Your task to perform on an android device: allow cookies in the chrome app Image 0: 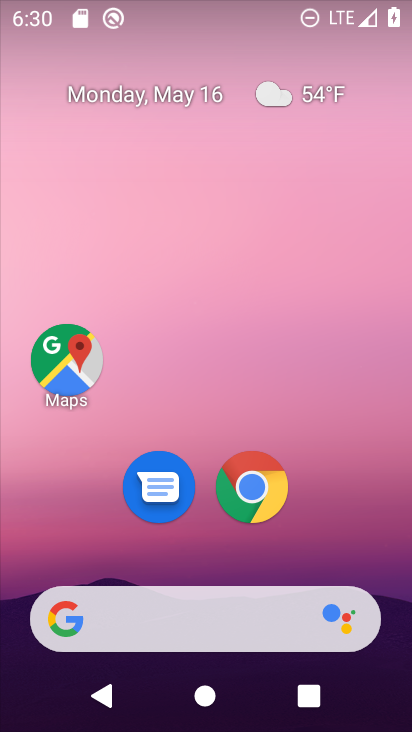
Step 0: click (235, 497)
Your task to perform on an android device: allow cookies in the chrome app Image 1: 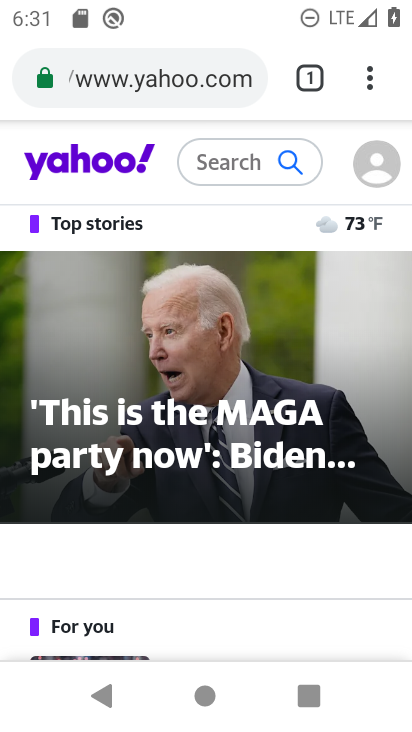
Step 1: click (359, 77)
Your task to perform on an android device: allow cookies in the chrome app Image 2: 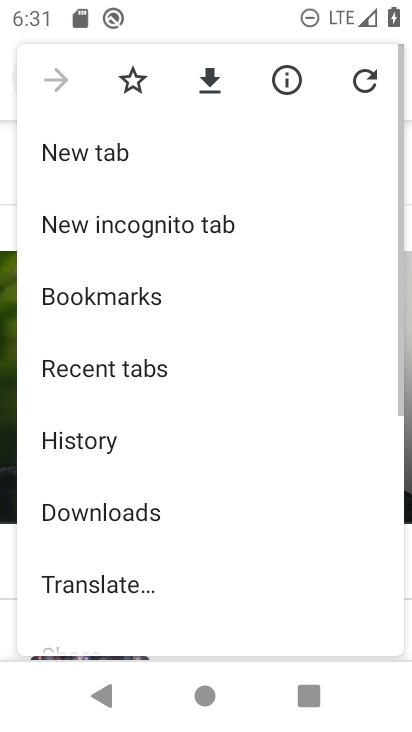
Step 2: drag from (127, 608) to (163, 226)
Your task to perform on an android device: allow cookies in the chrome app Image 3: 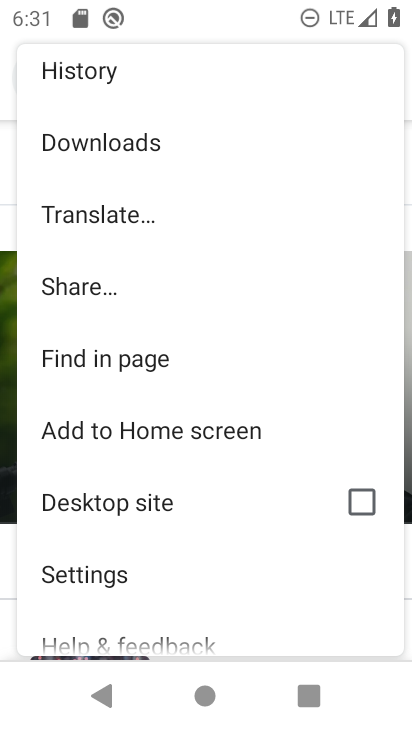
Step 3: click (98, 563)
Your task to perform on an android device: allow cookies in the chrome app Image 4: 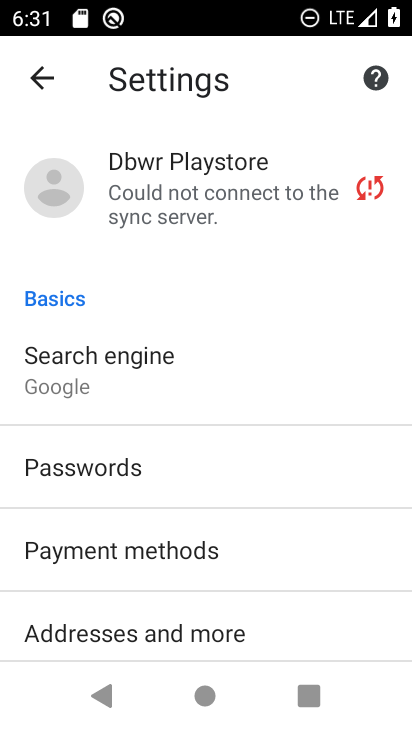
Step 4: drag from (83, 619) to (101, 308)
Your task to perform on an android device: allow cookies in the chrome app Image 5: 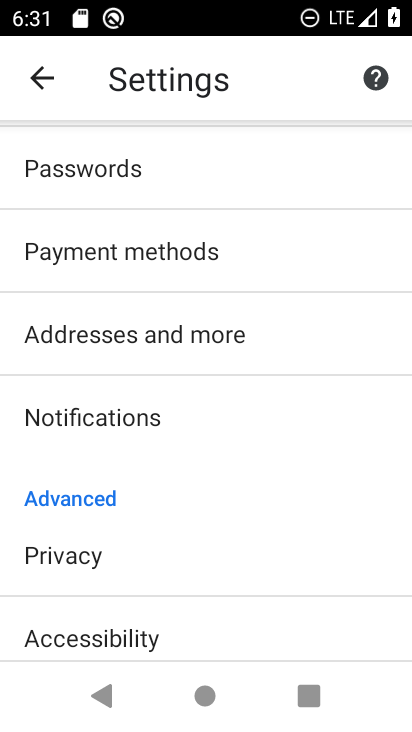
Step 5: drag from (85, 603) to (119, 365)
Your task to perform on an android device: allow cookies in the chrome app Image 6: 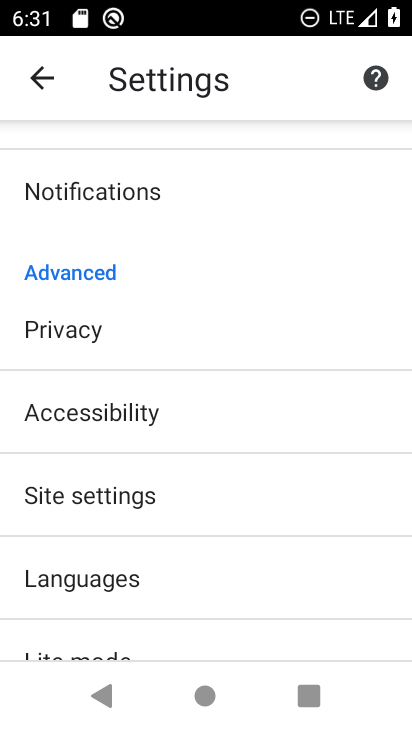
Step 6: click (68, 503)
Your task to perform on an android device: allow cookies in the chrome app Image 7: 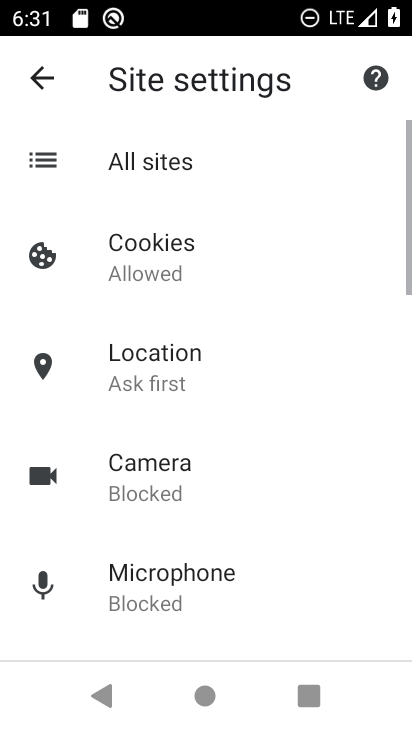
Step 7: click (201, 266)
Your task to perform on an android device: allow cookies in the chrome app Image 8: 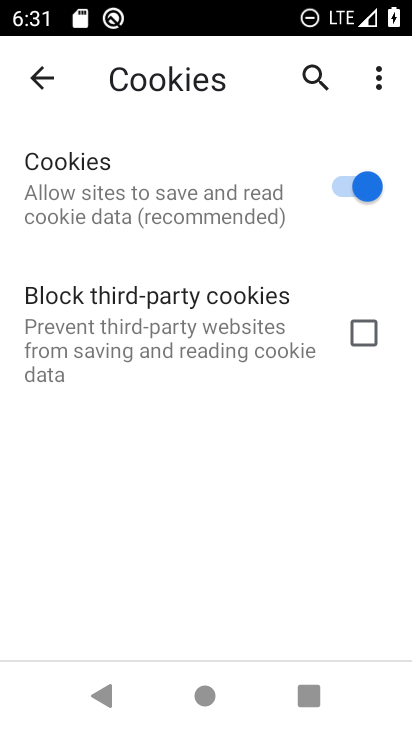
Step 8: task complete